Your task to perform on an android device: Go to Maps Image 0: 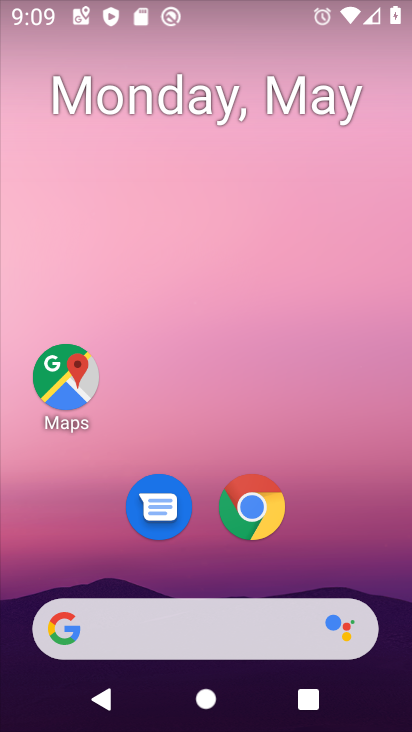
Step 0: click (87, 383)
Your task to perform on an android device: Go to Maps Image 1: 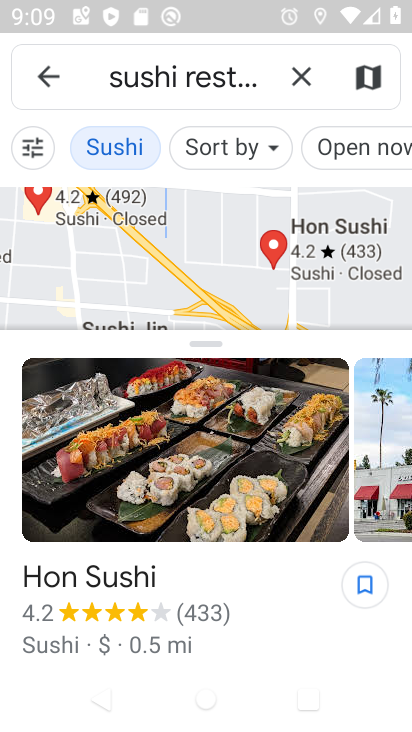
Step 1: click (49, 75)
Your task to perform on an android device: Go to Maps Image 2: 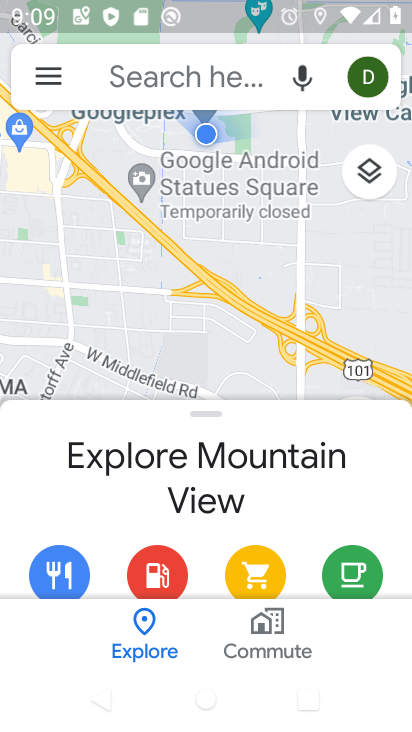
Step 2: click (55, 74)
Your task to perform on an android device: Go to Maps Image 3: 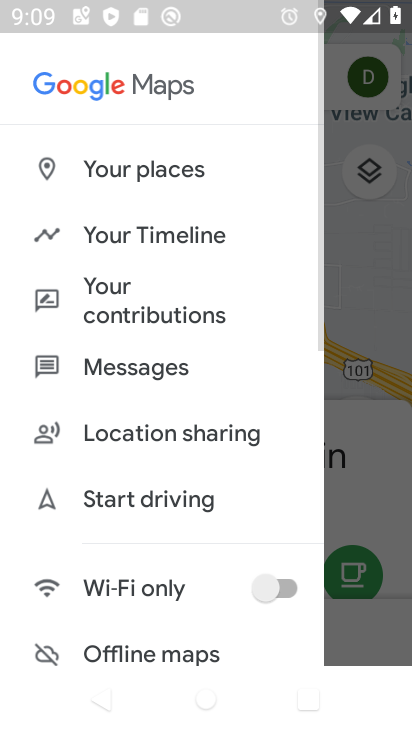
Step 3: drag from (144, 516) to (242, 118)
Your task to perform on an android device: Go to Maps Image 4: 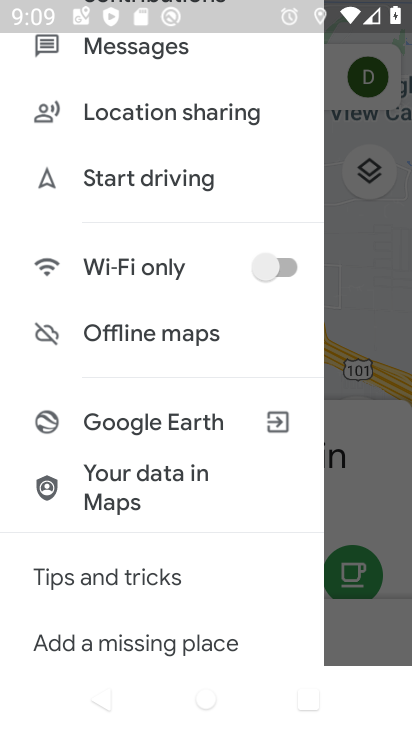
Step 4: click (363, 259)
Your task to perform on an android device: Go to Maps Image 5: 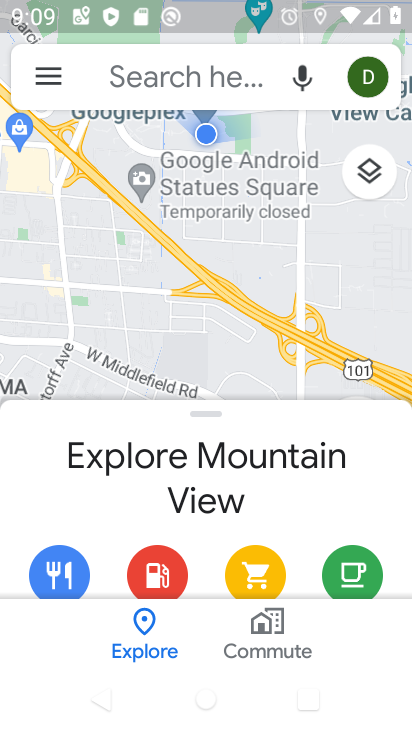
Step 5: task complete